Your task to perform on an android device: What is the news today? Image 0: 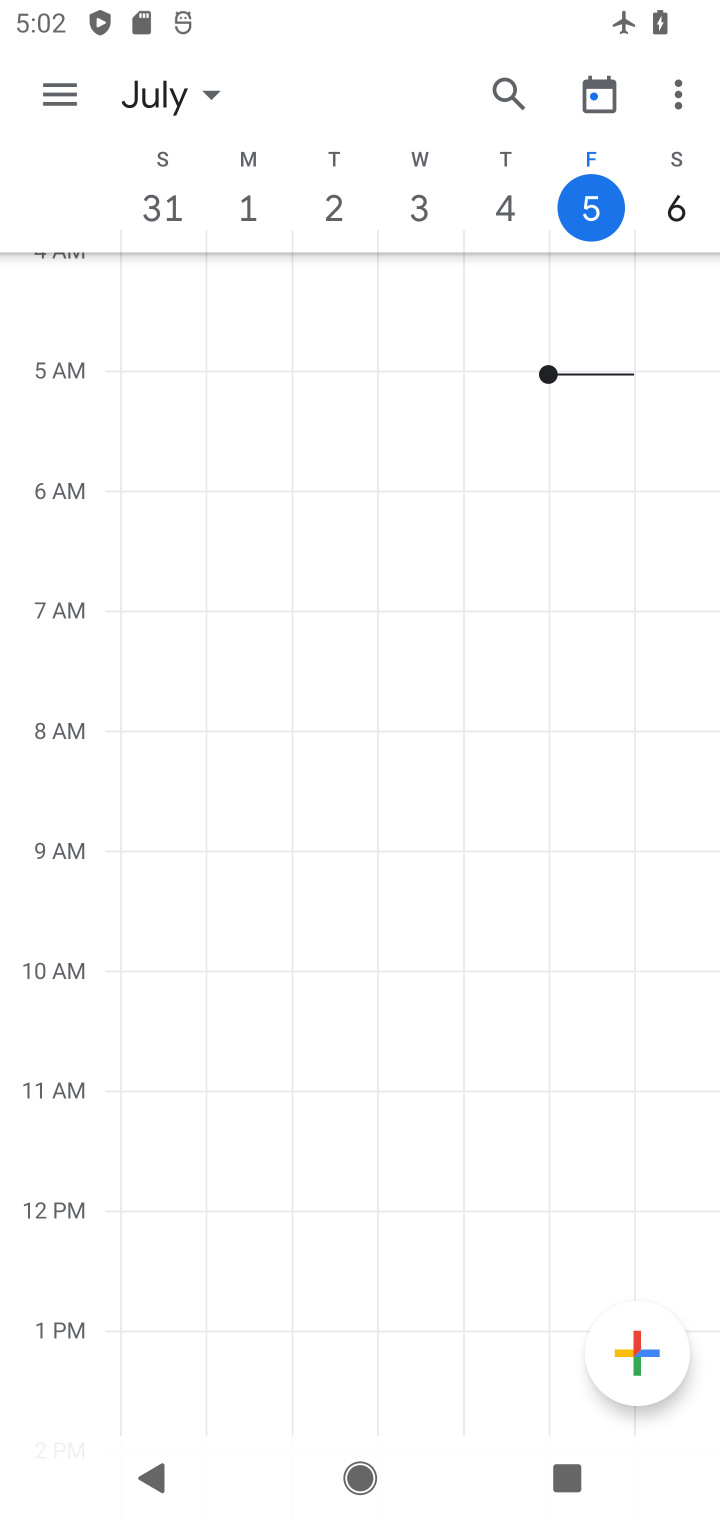
Step 0: press home button
Your task to perform on an android device: What is the news today? Image 1: 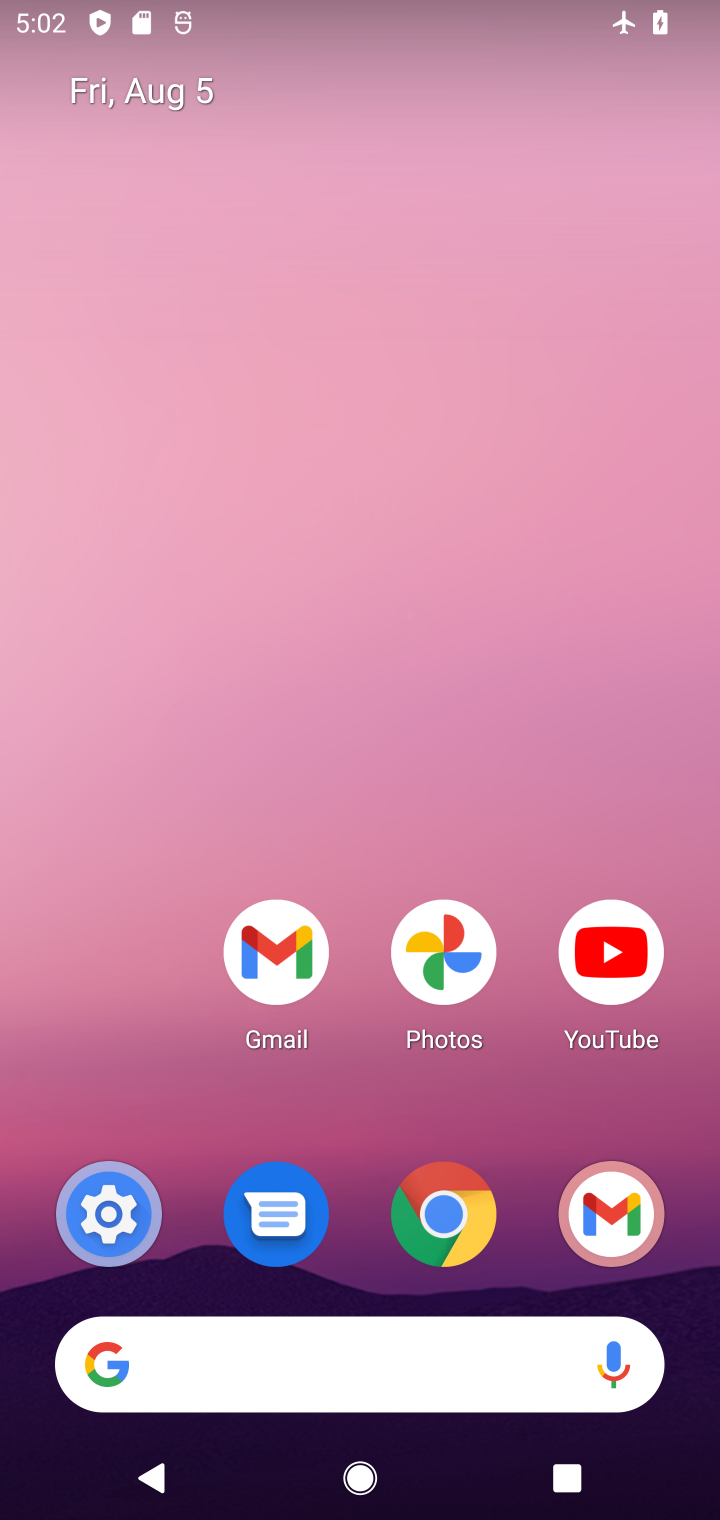
Step 1: click (326, 1358)
Your task to perform on an android device: What is the news today? Image 2: 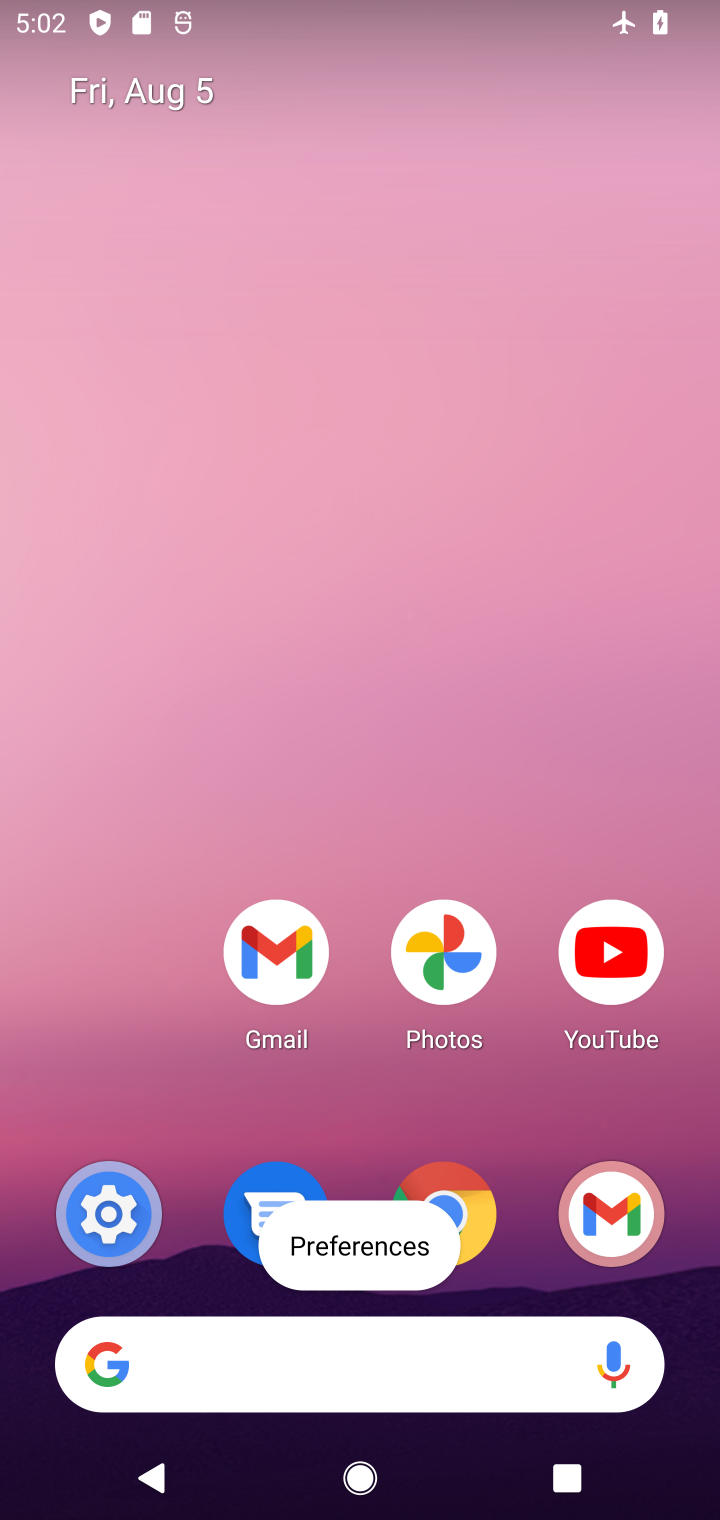
Step 2: click (326, 1358)
Your task to perform on an android device: What is the news today? Image 3: 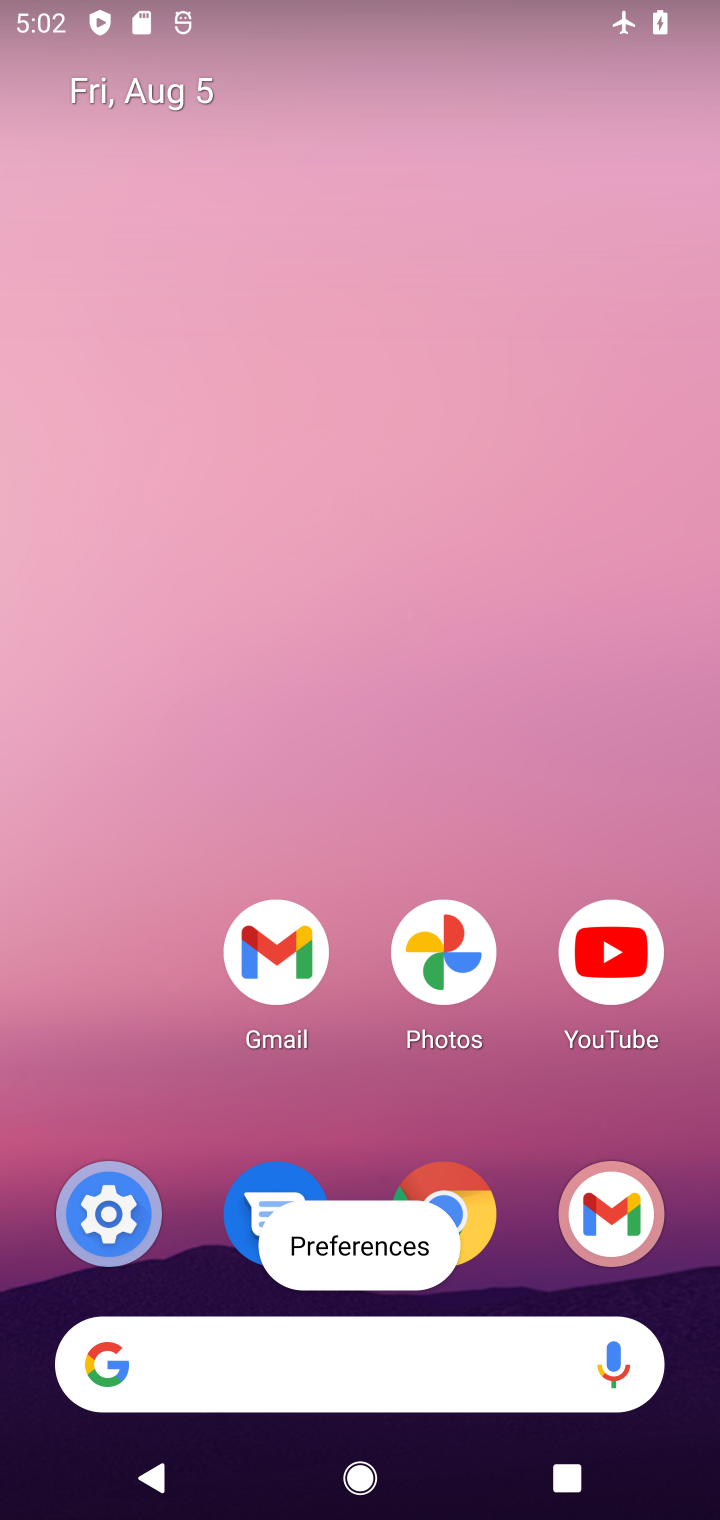
Step 3: click (326, 1358)
Your task to perform on an android device: What is the news today? Image 4: 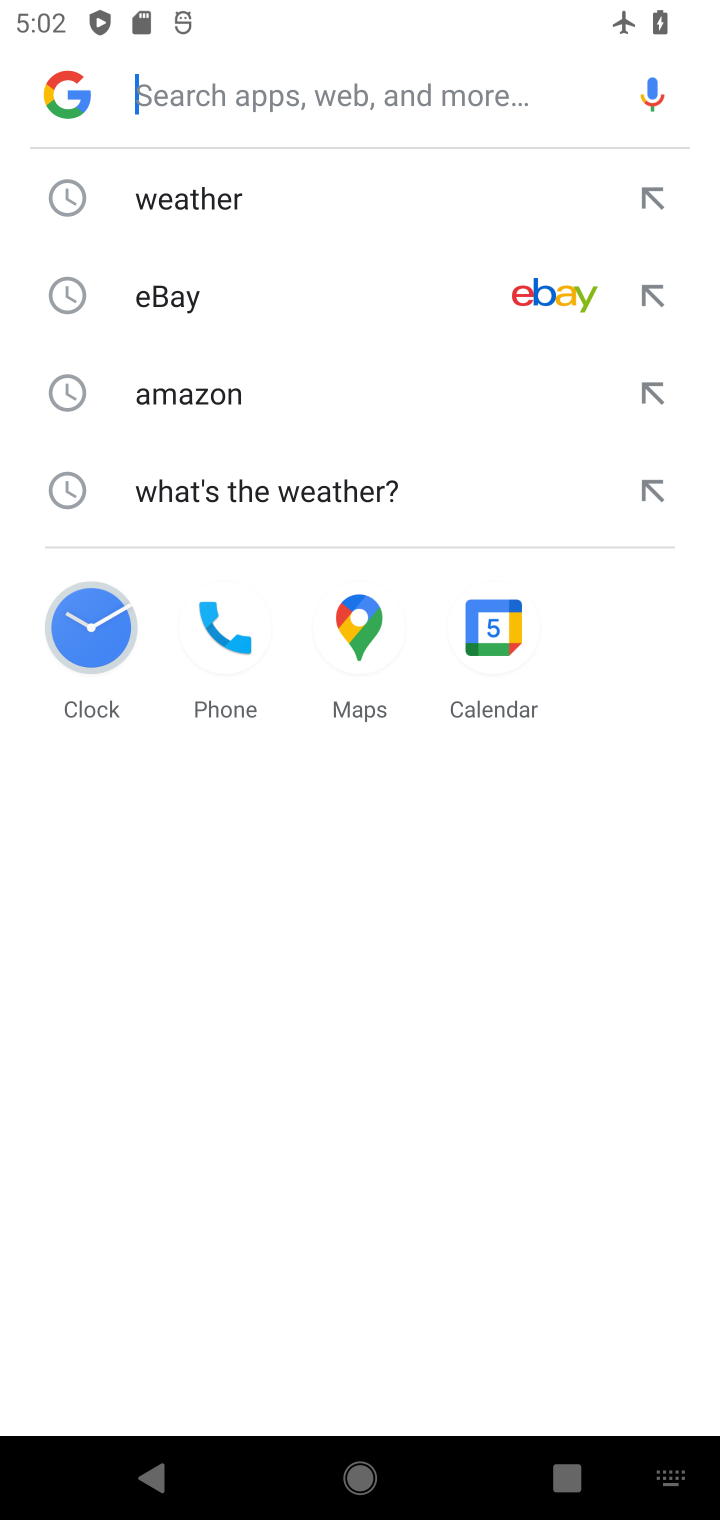
Step 4: type "News"
Your task to perform on an android device: What is the news today? Image 5: 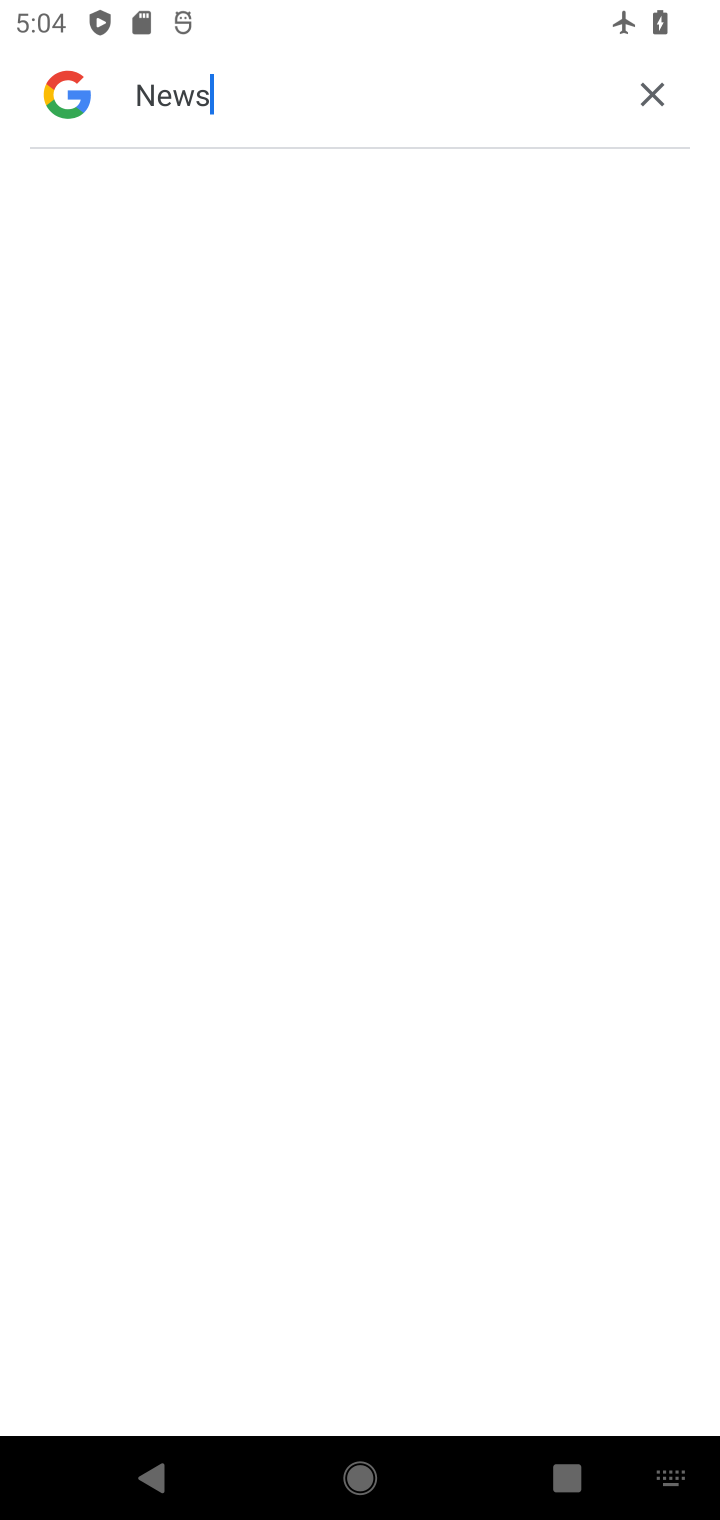
Step 5: task complete